Your task to perform on an android device: create a new album in the google photos Image 0: 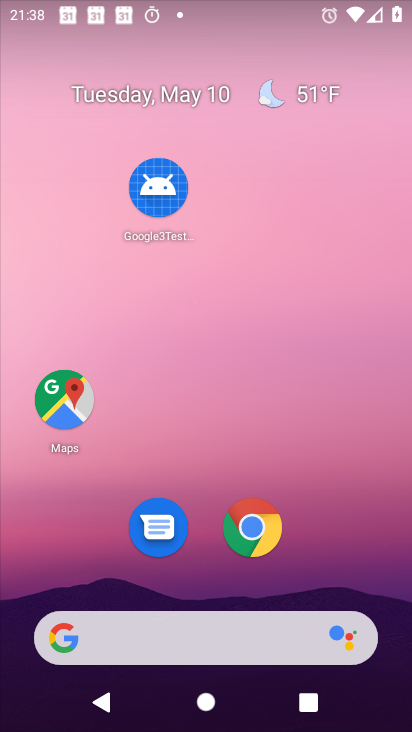
Step 0: drag from (221, 589) to (227, 14)
Your task to perform on an android device: create a new album in the google photos Image 1: 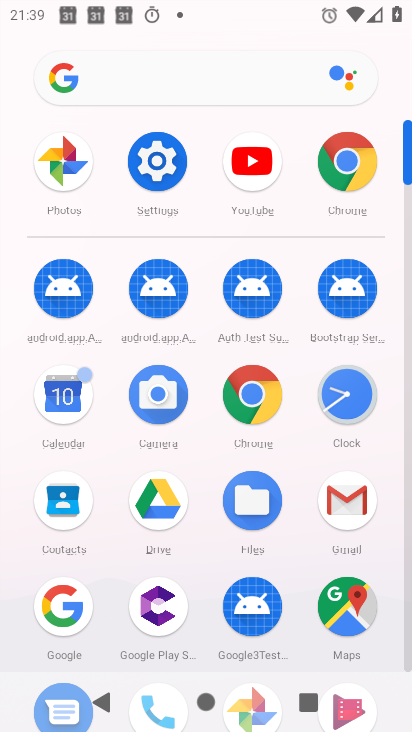
Step 1: drag from (207, 630) to (196, 129)
Your task to perform on an android device: create a new album in the google photos Image 2: 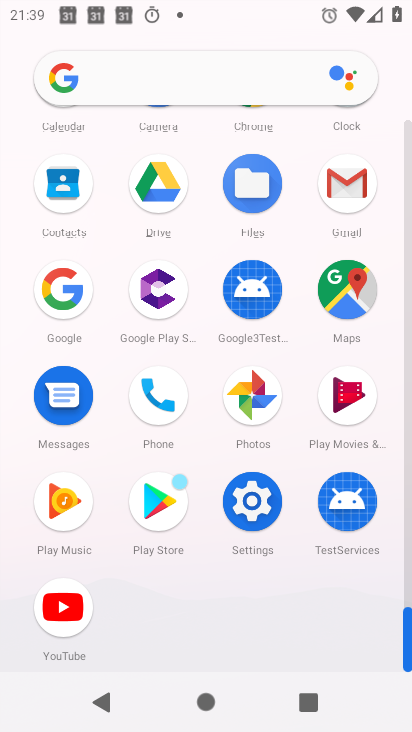
Step 2: click (249, 394)
Your task to perform on an android device: create a new album in the google photos Image 3: 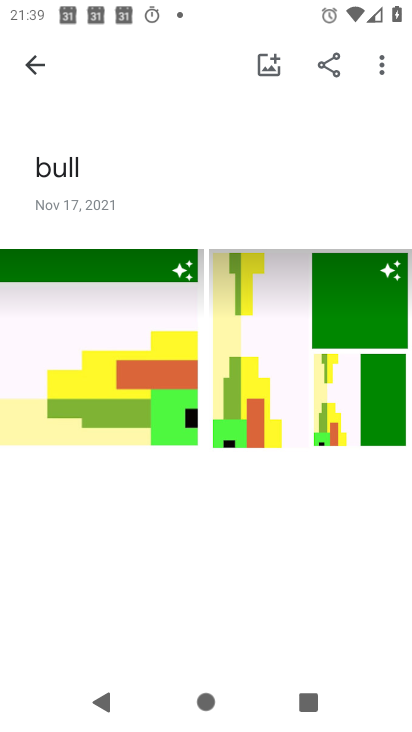
Step 3: click (47, 52)
Your task to perform on an android device: create a new album in the google photos Image 4: 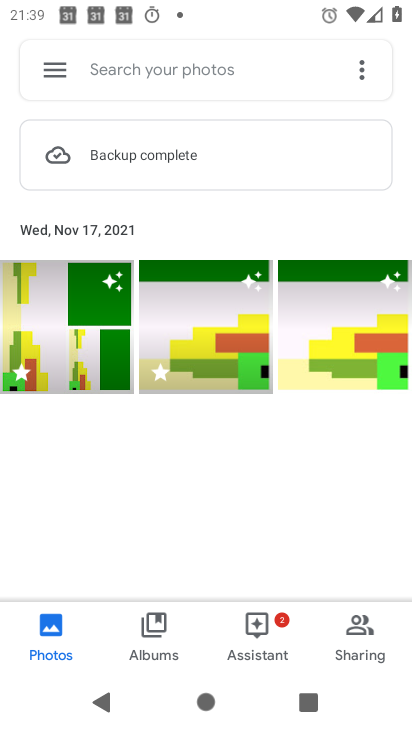
Step 4: click (140, 291)
Your task to perform on an android device: create a new album in the google photos Image 5: 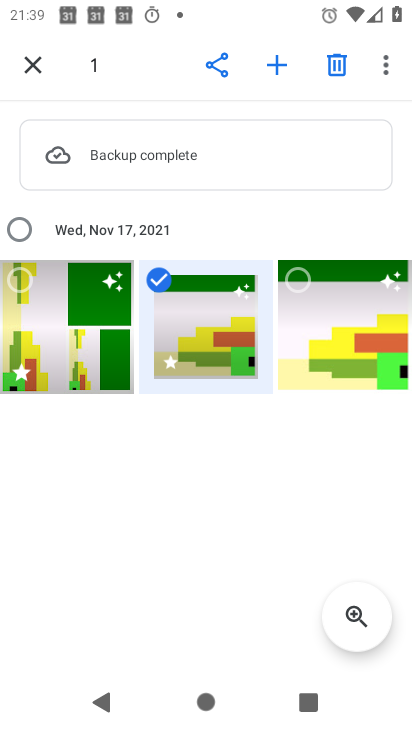
Step 5: click (278, 68)
Your task to perform on an android device: create a new album in the google photos Image 6: 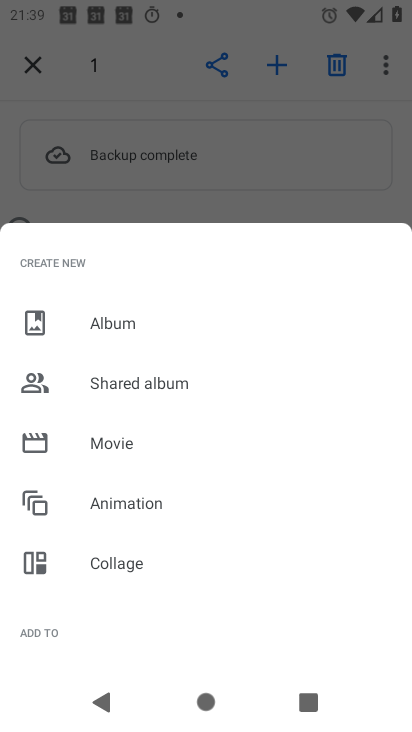
Step 6: click (119, 327)
Your task to perform on an android device: create a new album in the google photos Image 7: 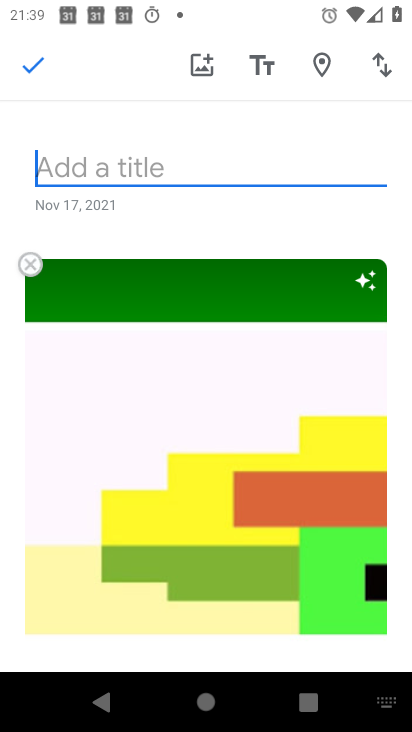
Step 7: type "jop"
Your task to perform on an android device: create a new album in the google photos Image 8: 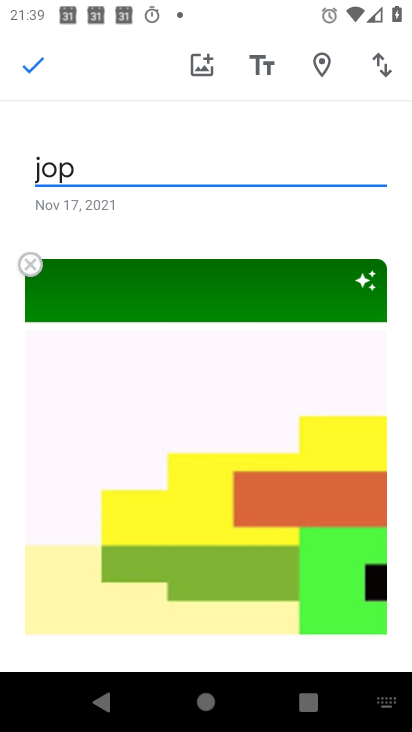
Step 8: click (41, 70)
Your task to perform on an android device: create a new album in the google photos Image 9: 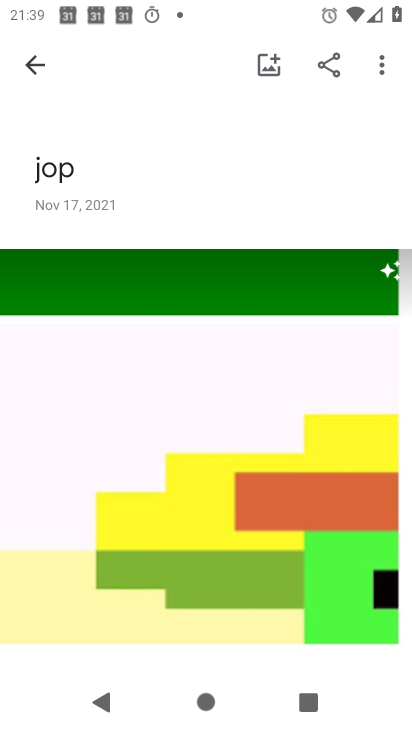
Step 9: task complete